Your task to perform on an android device: Go to Reddit.com Image 0: 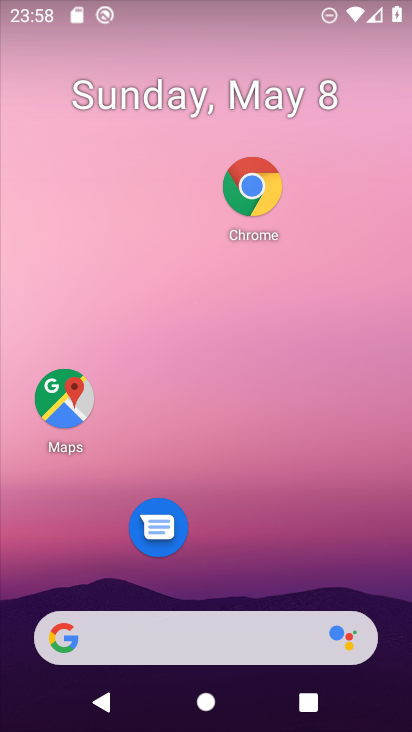
Step 0: drag from (319, 564) to (353, 304)
Your task to perform on an android device: Go to Reddit.com Image 1: 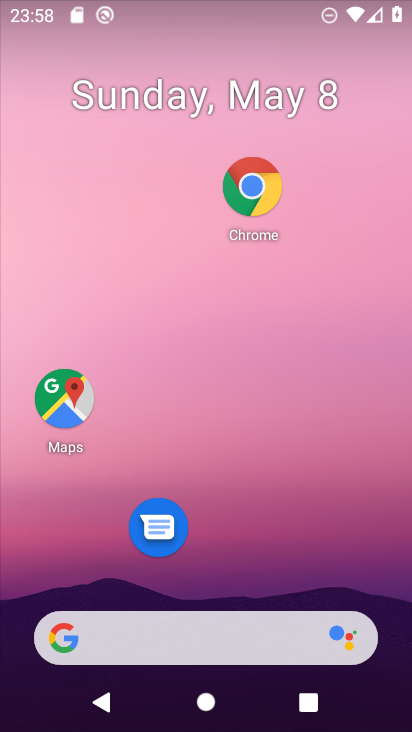
Step 1: drag from (312, 502) to (337, 336)
Your task to perform on an android device: Go to Reddit.com Image 2: 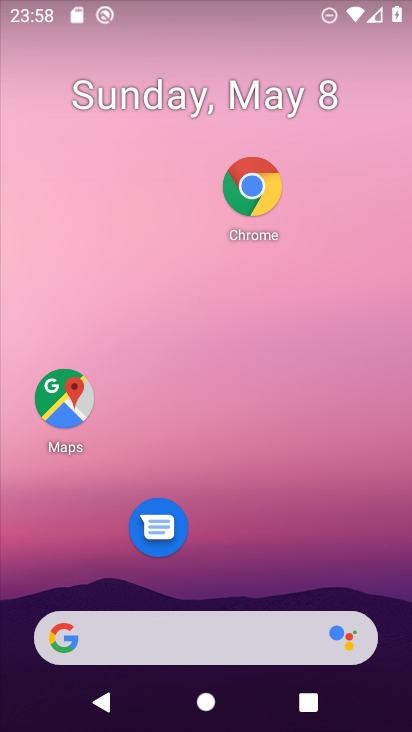
Step 2: drag from (267, 469) to (323, 168)
Your task to perform on an android device: Go to Reddit.com Image 3: 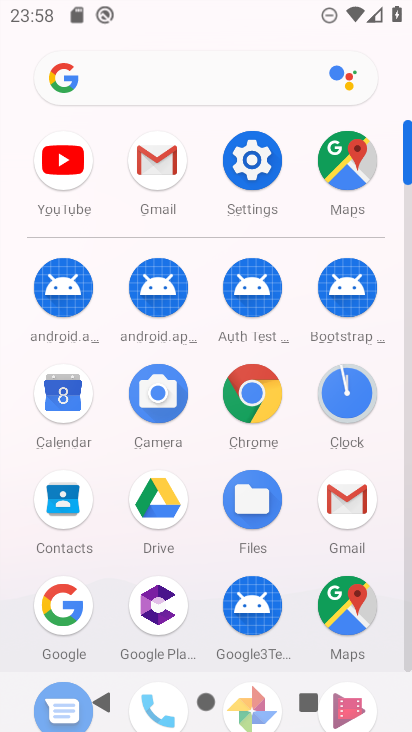
Step 3: drag from (210, 530) to (240, 265)
Your task to perform on an android device: Go to Reddit.com Image 4: 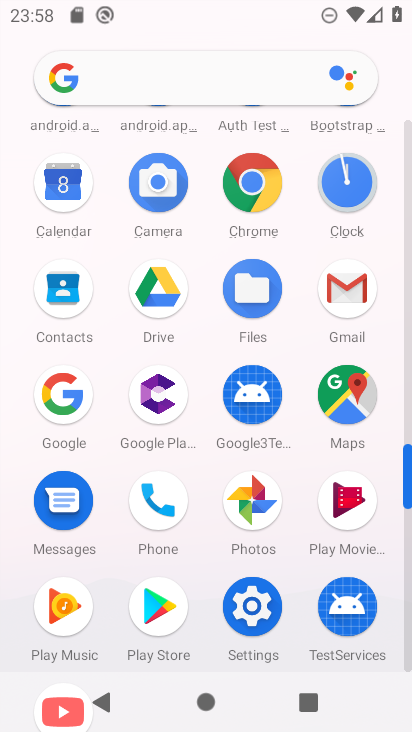
Step 4: click (267, 179)
Your task to perform on an android device: Go to Reddit.com Image 5: 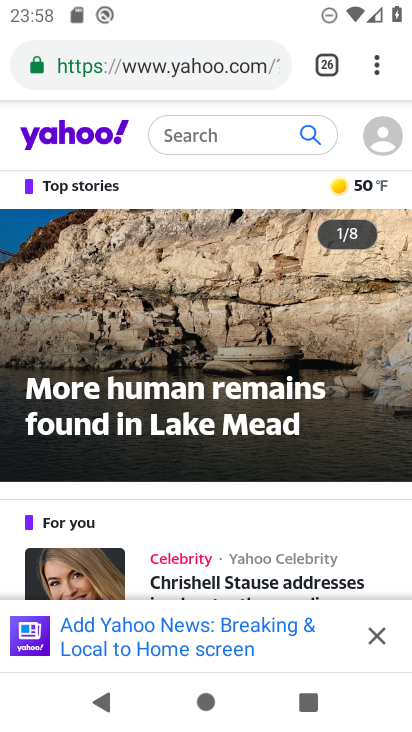
Step 5: click (365, 59)
Your task to perform on an android device: Go to Reddit.com Image 6: 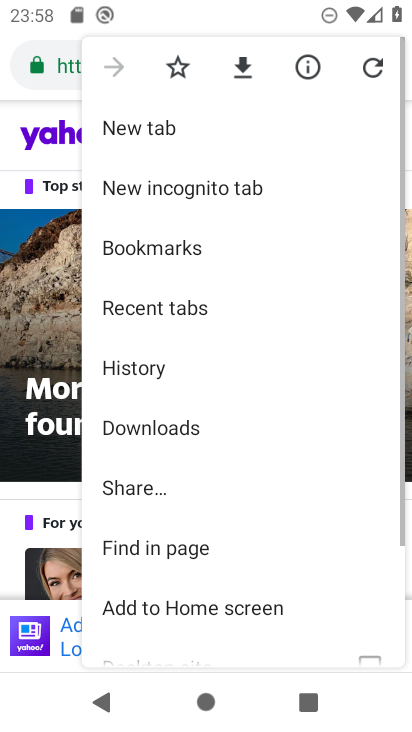
Step 6: click (148, 124)
Your task to perform on an android device: Go to Reddit.com Image 7: 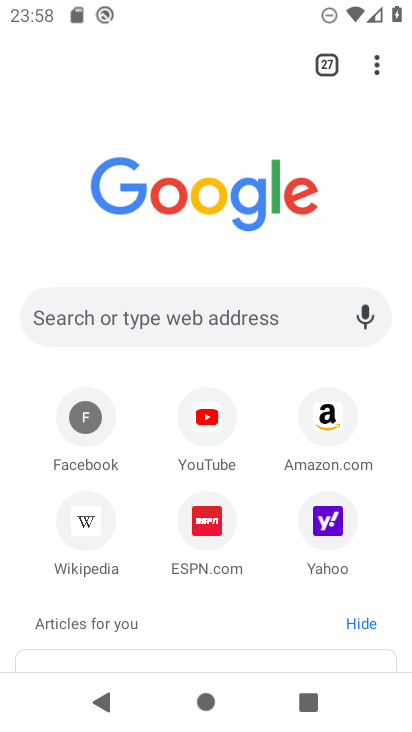
Step 7: click (261, 313)
Your task to perform on an android device: Go to Reddit.com Image 8: 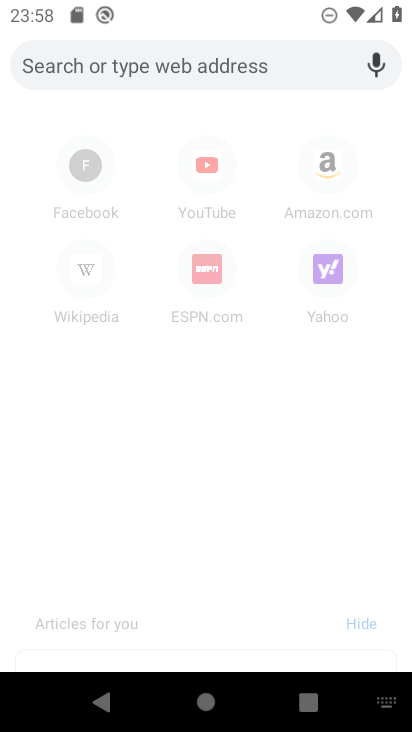
Step 8: type "Reddit.com"
Your task to perform on an android device: Go to Reddit.com Image 9: 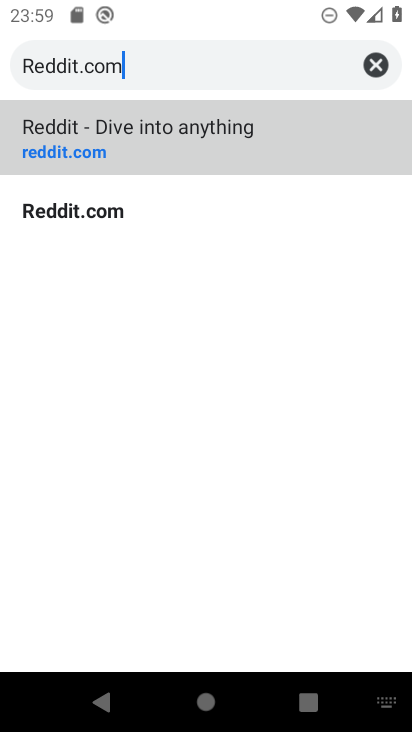
Step 9: click (62, 214)
Your task to perform on an android device: Go to Reddit.com Image 10: 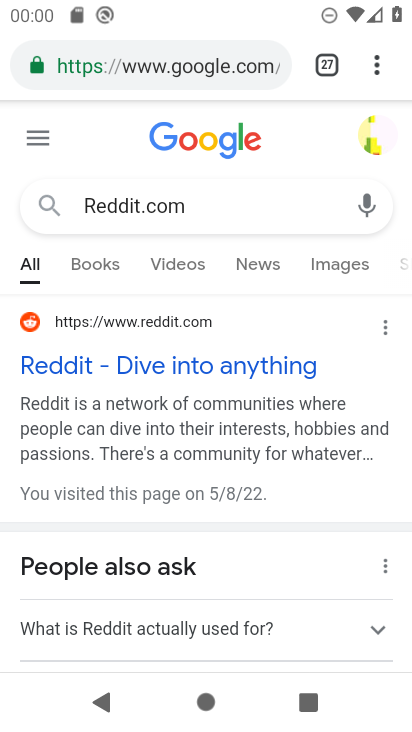
Step 10: task complete